Your task to perform on an android device: Show me popular games on the Play Store Image 0: 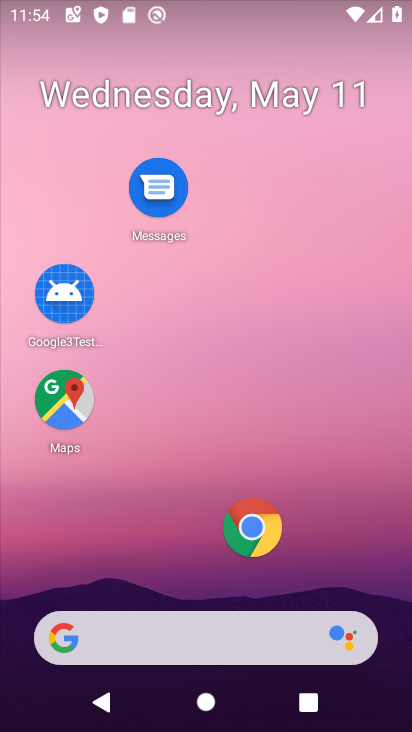
Step 0: drag from (214, 586) to (98, 42)
Your task to perform on an android device: Show me popular games on the Play Store Image 1: 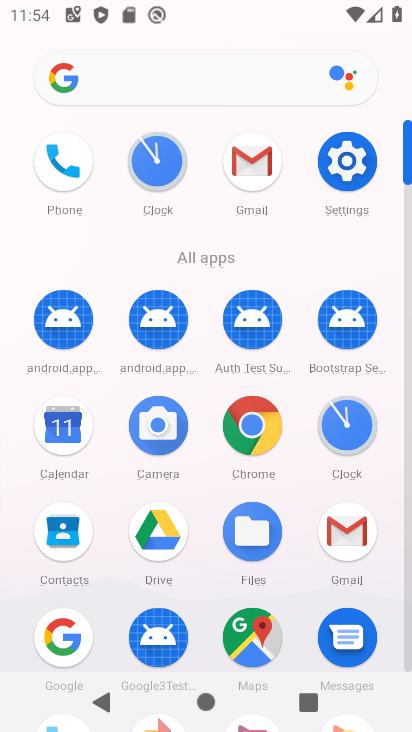
Step 1: drag from (310, 591) to (291, 278)
Your task to perform on an android device: Show me popular games on the Play Store Image 2: 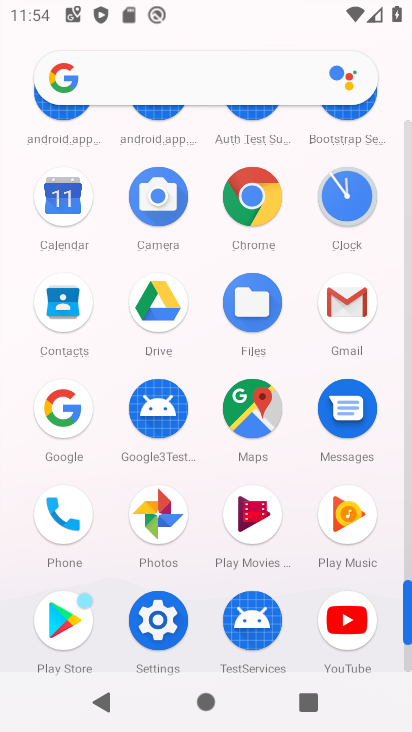
Step 2: click (43, 611)
Your task to perform on an android device: Show me popular games on the Play Store Image 3: 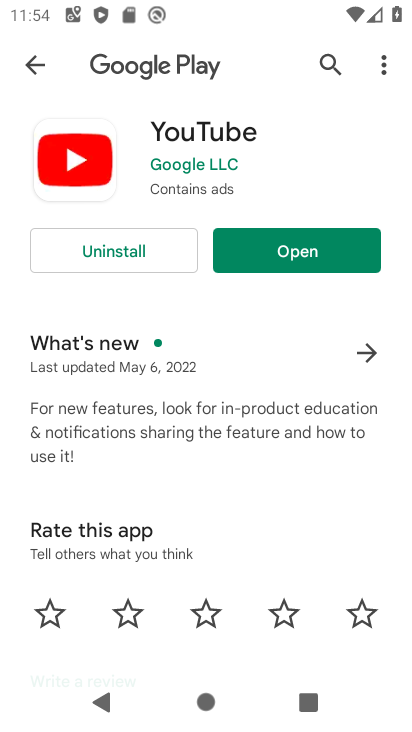
Step 3: click (26, 74)
Your task to perform on an android device: Show me popular games on the Play Store Image 4: 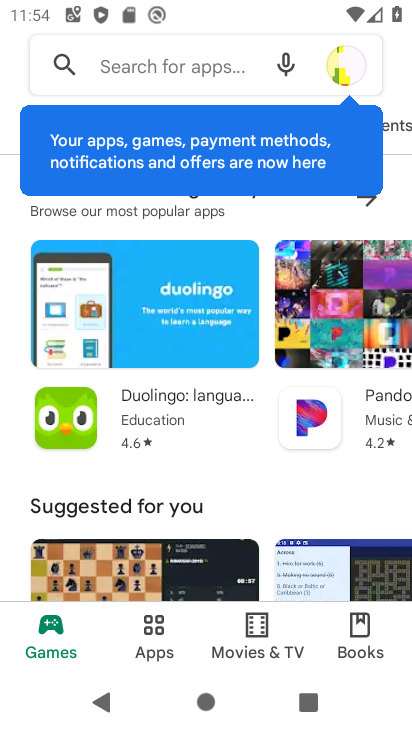
Step 4: click (58, 635)
Your task to perform on an android device: Show me popular games on the Play Store Image 5: 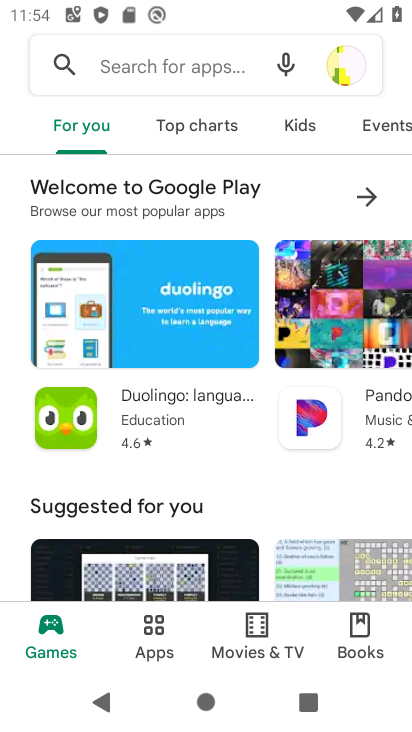
Step 5: drag from (236, 493) to (191, 137)
Your task to perform on an android device: Show me popular games on the Play Store Image 6: 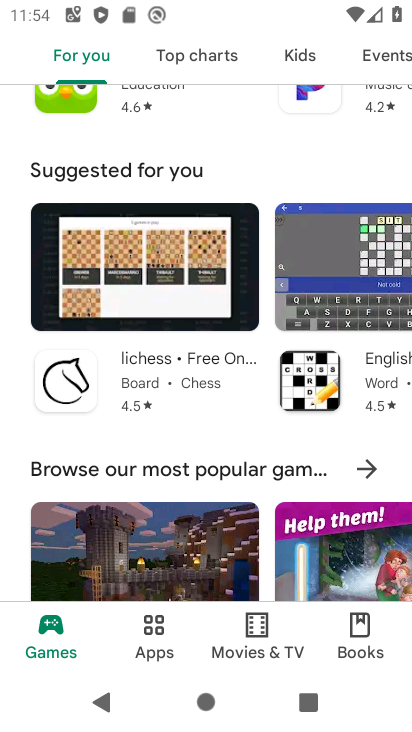
Step 6: click (363, 467)
Your task to perform on an android device: Show me popular games on the Play Store Image 7: 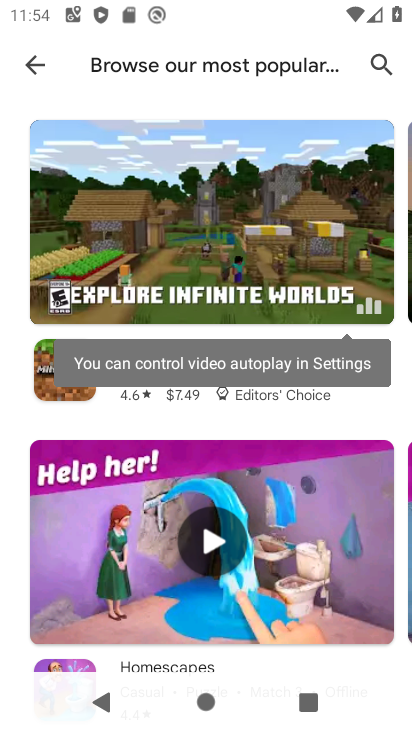
Step 7: task complete